Your task to perform on an android device: add a label to a message in the gmail app Image 0: 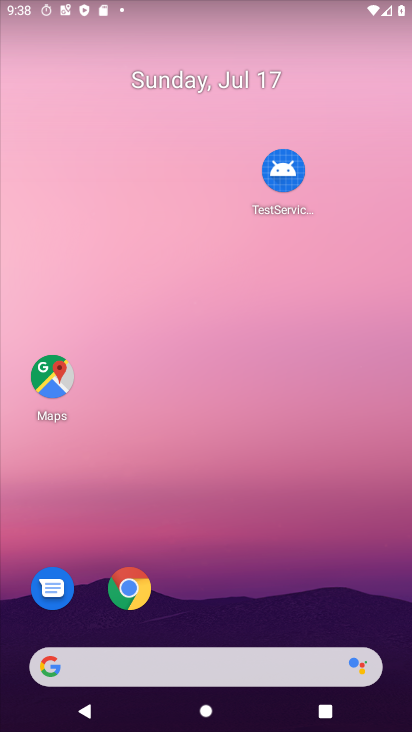
Step 0: drag from (269, 612) to (337, 158)
Your task to perform on an android device: add a label to a message in the gmail app Image 1: 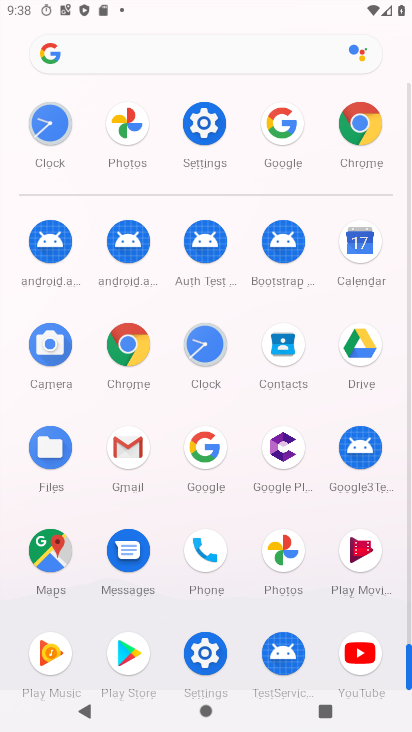
Step 1: click (130, 455)
Your task to perform on an android device: add a label to a message in the gmail app Image 2: 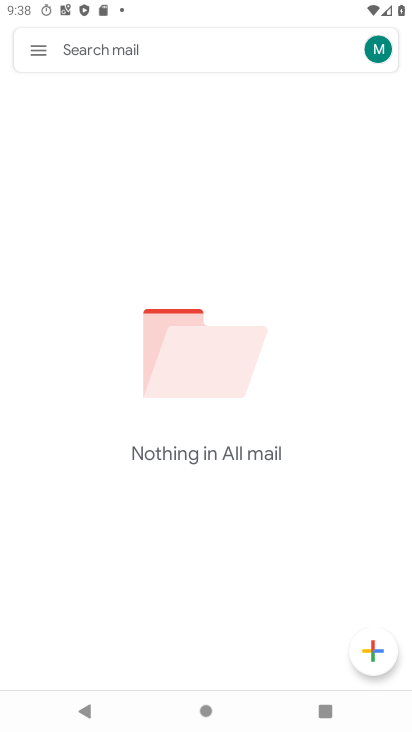
Step 2: click (33, 41)
Your task to perform on an android device: add a label to a message in the gmail app Image 3: 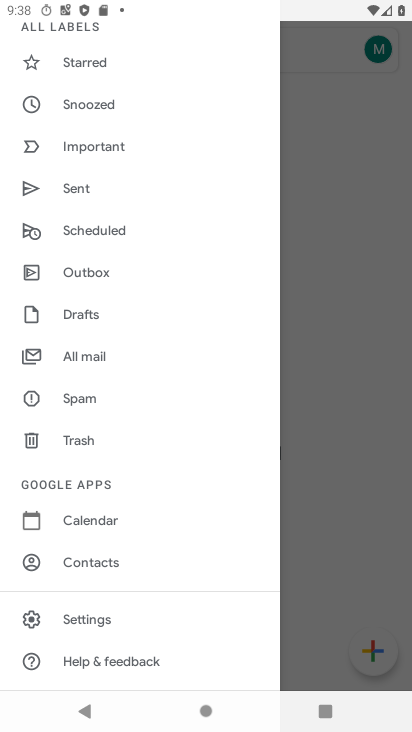
Step 3: click (101, 613)
Your task to perform on an android device: add a label to a message in the gmail app Image 4: 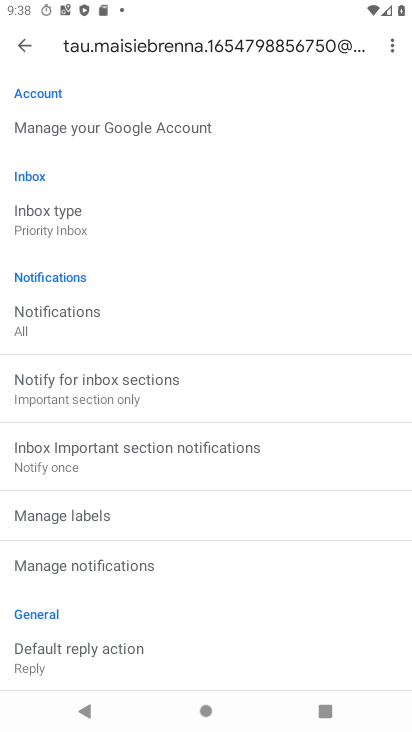
Step 4: task complete